Your task to perform on an android device: turn on translation in the chrome app Image 0: 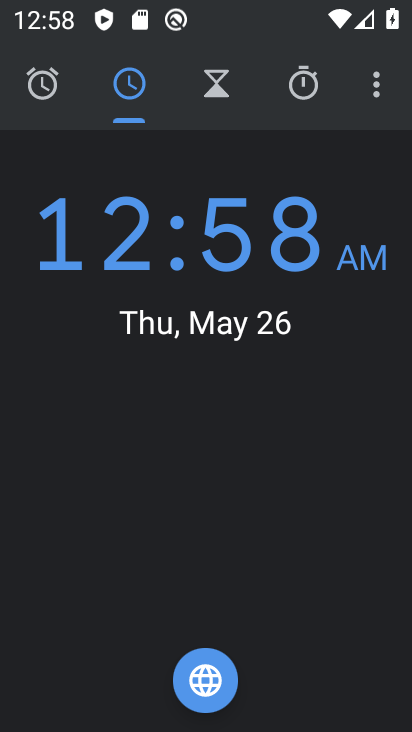
Step 0: press home button
Your task to perform on an android device: turn on translation in the chrome app Image 1: 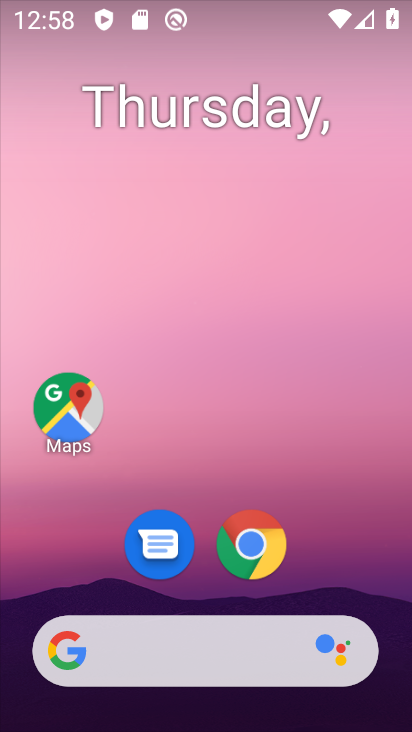
Step 1: click (254, 550)
Your task to perform on an android device: turn on translation in the chrome app Image 2: 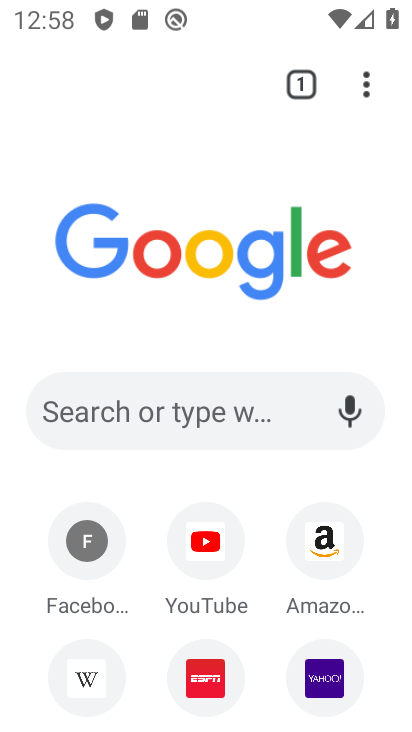
Step 2: click (369, 94)
Your task to perform on an android device: turn on translation in the chrome app Image 3: 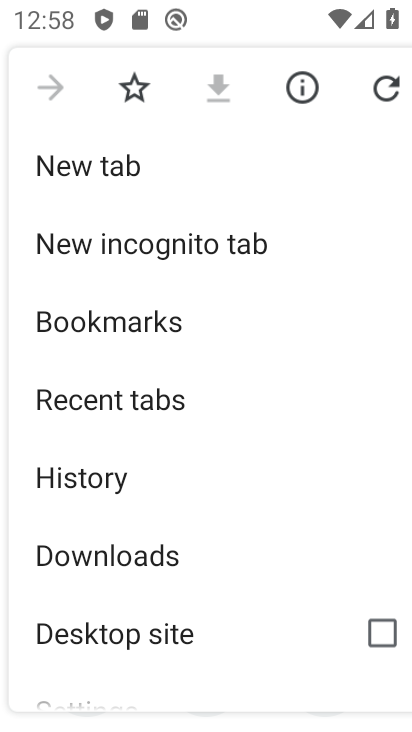
Step 3: drag from (86, 664) to (84, 171)
Your task to perform on an android device: turn on translation in the chrome app Image 4: 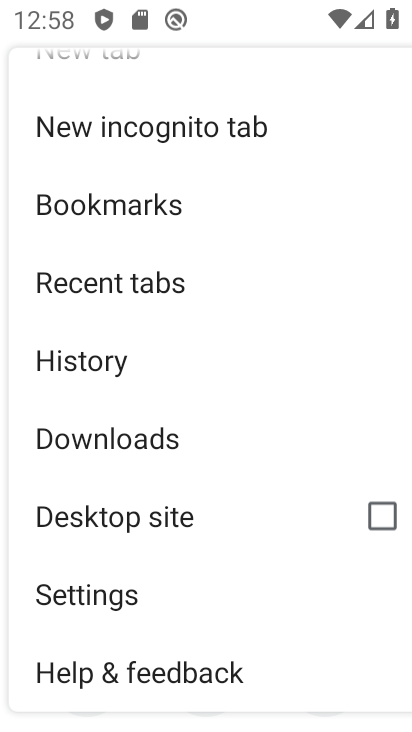
Step 4: click (86, 594)
Your task to perform on an android device: turn on translation in the chrome app Image 5: 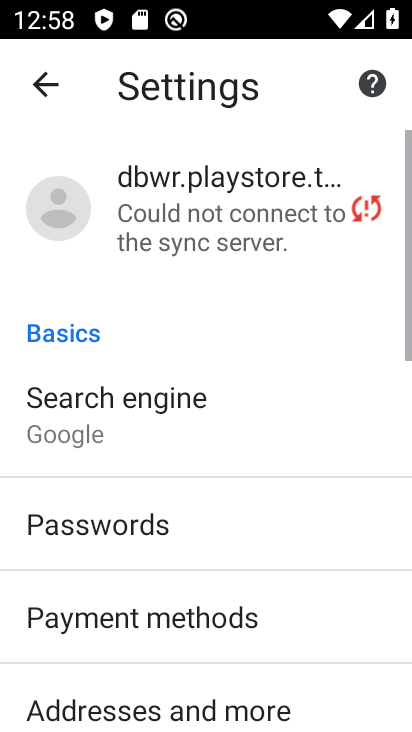
Step 5: drag from (102, 671) to (123, 267)
Your task to perform on an android device: turn on translation in the chrome app Image 6: 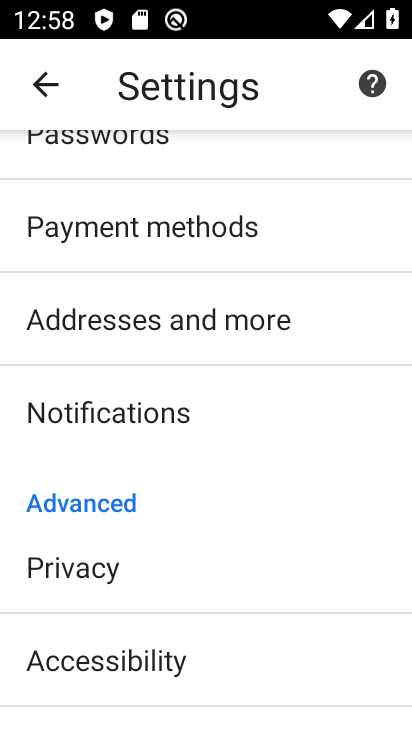
Step 6: drag from (99, 639) to (115, 255)
Your task to perform on an android device: turn on translation in the chrome app Image 7: 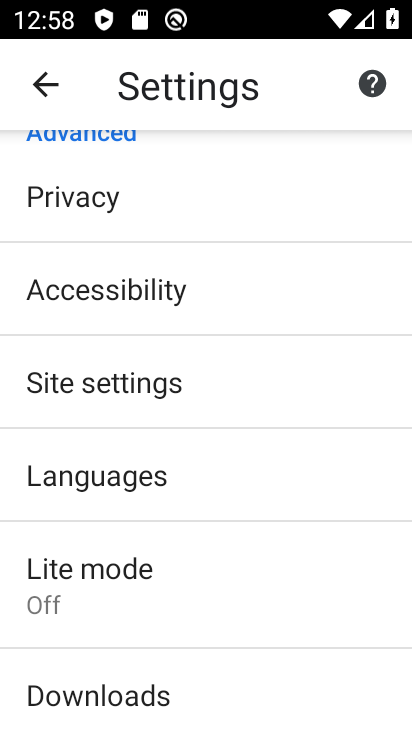
Step 7: click (106, 473)
Your task to perform on an android device: turn on translation in the chrome app Image 8: 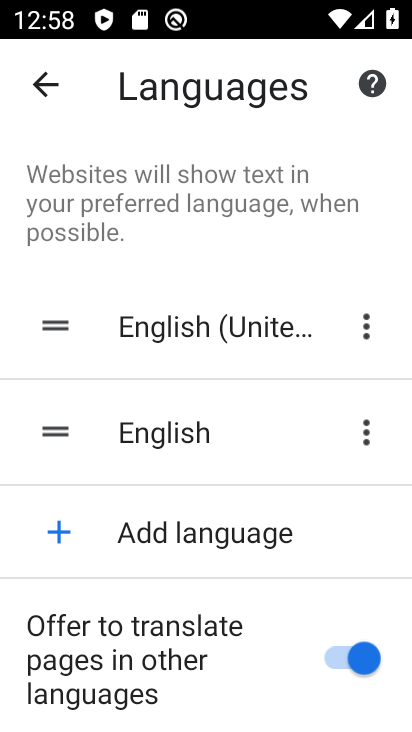
Step 8: task complete